Your task to perform on an android device: Go to sound settings Image 0: 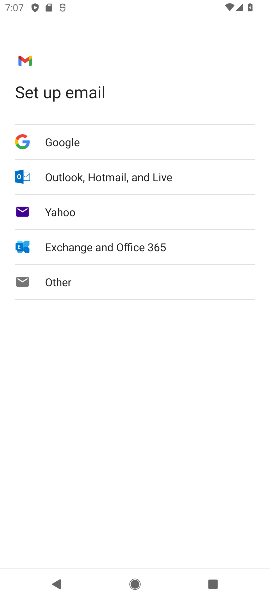
Step 0: press home button
Your task to perform on an android device: Go to sound settings Image 1: 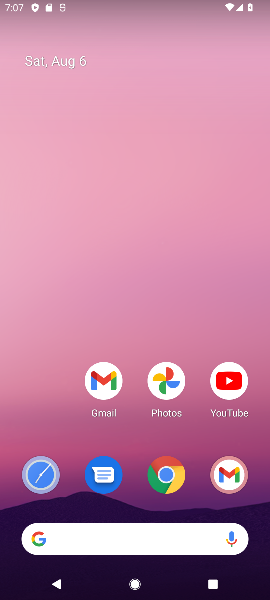
Step 1: drag from (129, 439) to (143, 105)
Your task to perform on an android device: Go to sound settings Image 2: 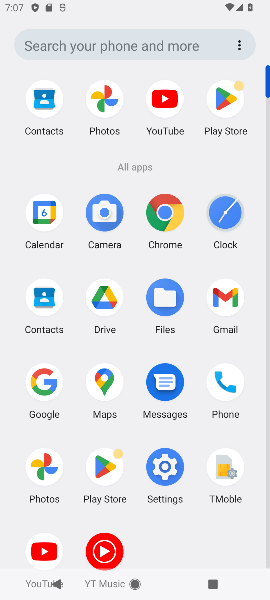
Step 2: click (174, 460)
Your task to perform on an android device: Go to sound settings Image 3: 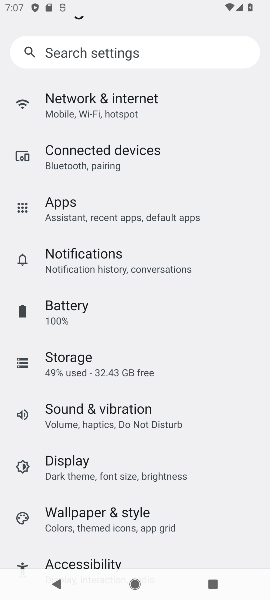
Step 3: drag from (149, 421) to (144, 205)
Your task to perform on an android device: Go to sound settings Image 4: 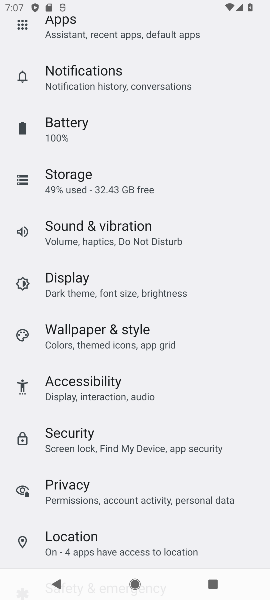
Step 4: drag from (90, 506) to (135, 167)
Your task to perform on an android device: Go to sound settings Image 5: 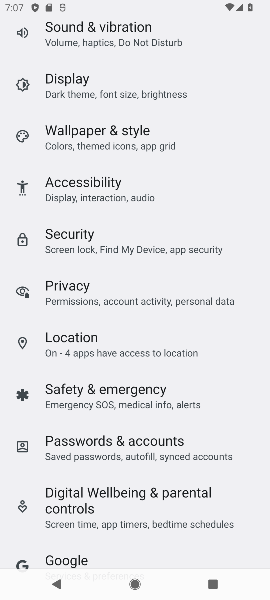
Step 5: drag from (104, 466) to (112, 144)
Your task to perform on an android device: Go to sound settings Image 6: 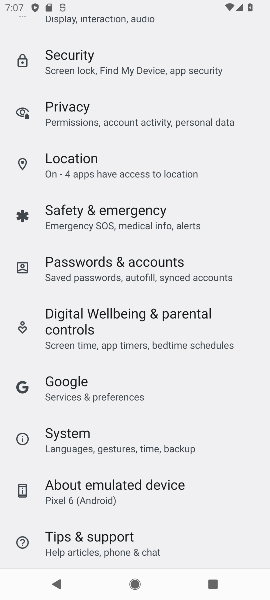
Step 6: drag from (114, 149) to (132, 436)
Your task to perform on an android device: Go to sound settings Image 7: 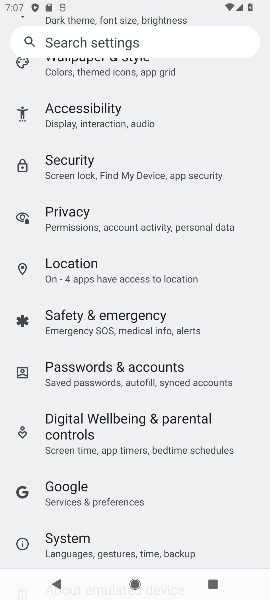
Step 7: drag from (132, 153) to (138, 424)
Your task to perform on an android device: Go to sound settings Image 8: 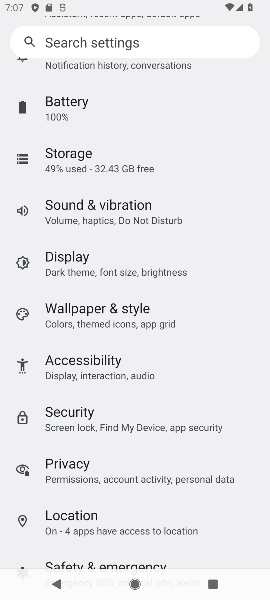
Step 8: click (94, 124)
Your task to perform on an android device: Go to sound settings Image 9: 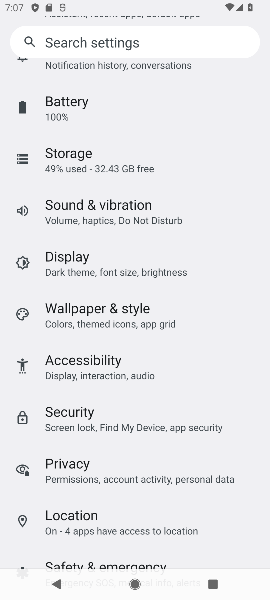
Step 9: drag from (94, 124) to (100, 352)
Your task to perform on an android device: Go to sound settings Image 10: 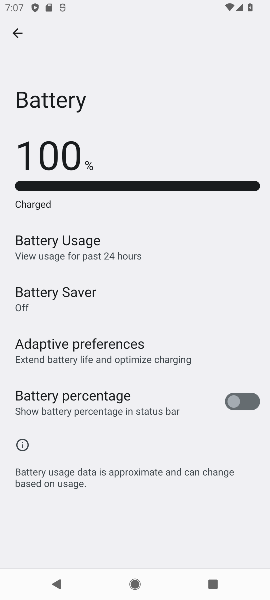
Step 10: click (19, 33)
Your task to perform on an android device: Go to sound settings Image 11: 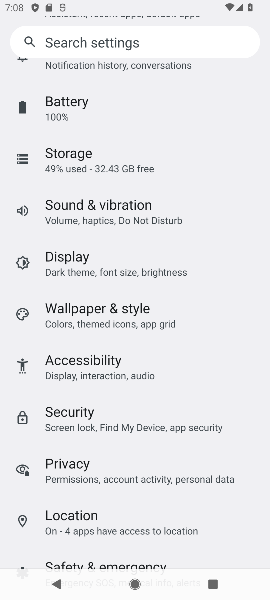
Step 11: click (116, 222)
Your task to perform on an android device: Go to sound settings Image 12: 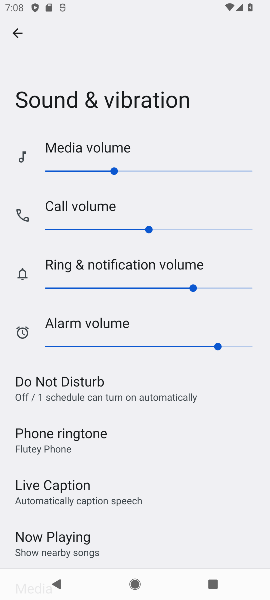
Step 12: task complete